Your task to perform on an android device: Search for "macbook pro 15 inch" on target.com, select the first entry, and add it to the cart. Image 0: 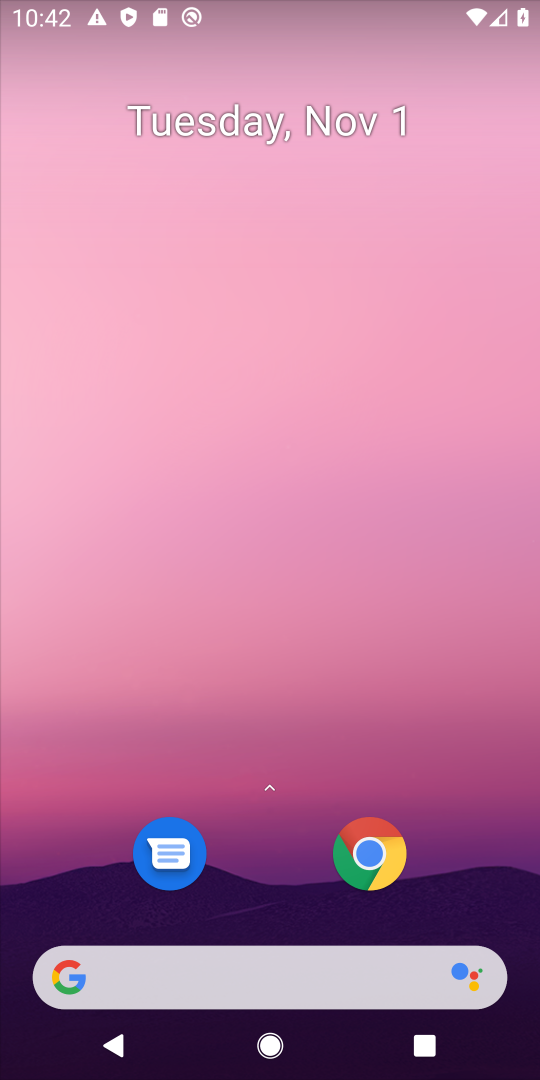
Step 0: click (282, 988)
Your task to perform on an android device: Search for "macbook pro 15 inch" on target.com, select the first entry, and add it to the cart. Image 1: 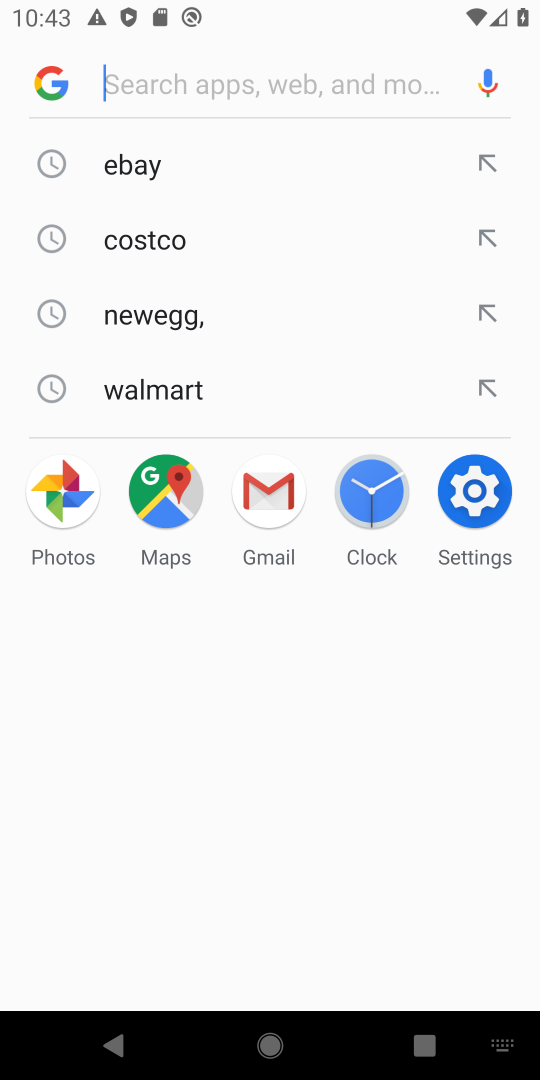
Step 1: type "target"
Your task to perform on an android device: Search for "macbook pro 15 inch" on target.com, select the first entry, and add it to the cart. Image 2: 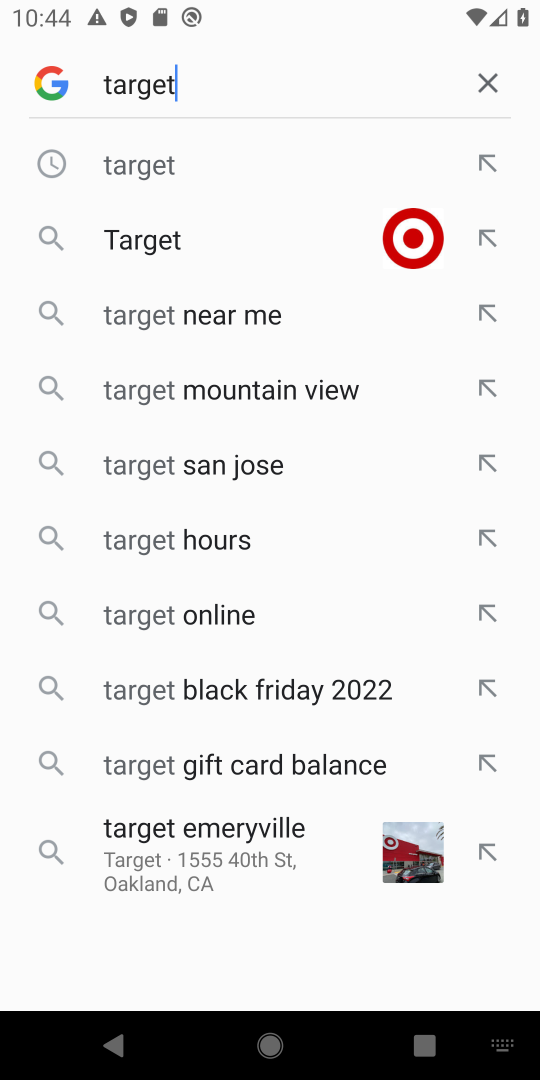
Step 2: click (363, 222)
Your task to perform on an android device: Search for "macbook pro 15 inch" on target.com, select the first entry, and add it to the cart. Image 3: 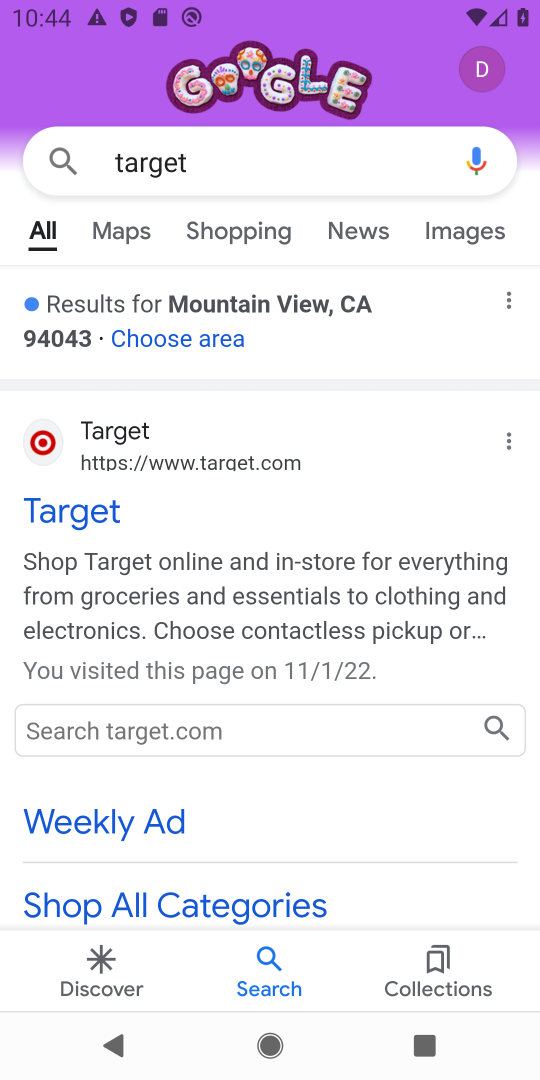
Step 3: click (129, 416)
Your task to perform on an android device: Search for "macbook pro 15 inch" on target.com, select the first entry, and add it to the cart. Image 4: 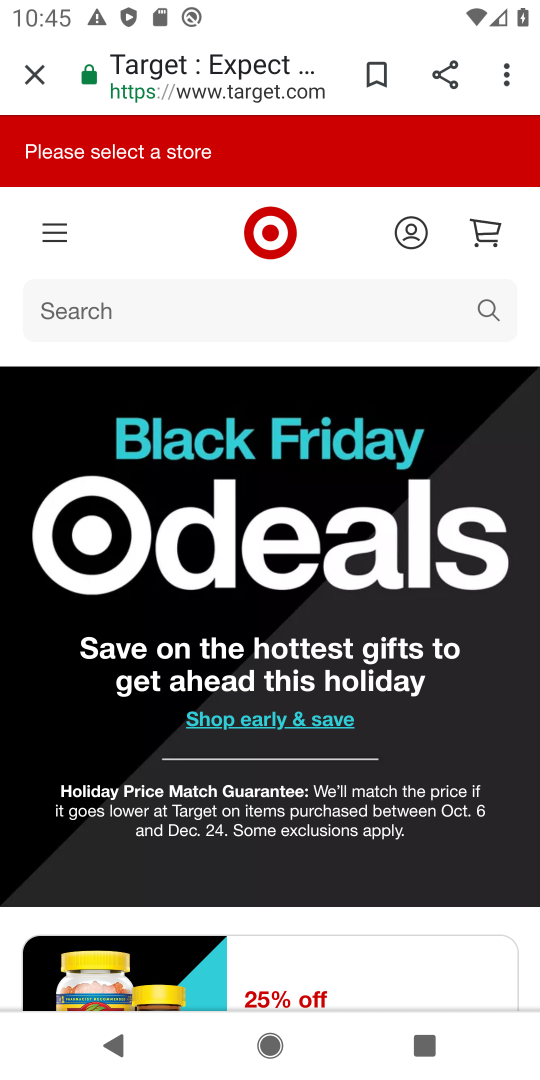
Step 4: click (356, 326)
Your task to perform on an android device: Search for "macbook pro 15 inch" on target.com, select the first entry, and add it to the cart. Image 5: 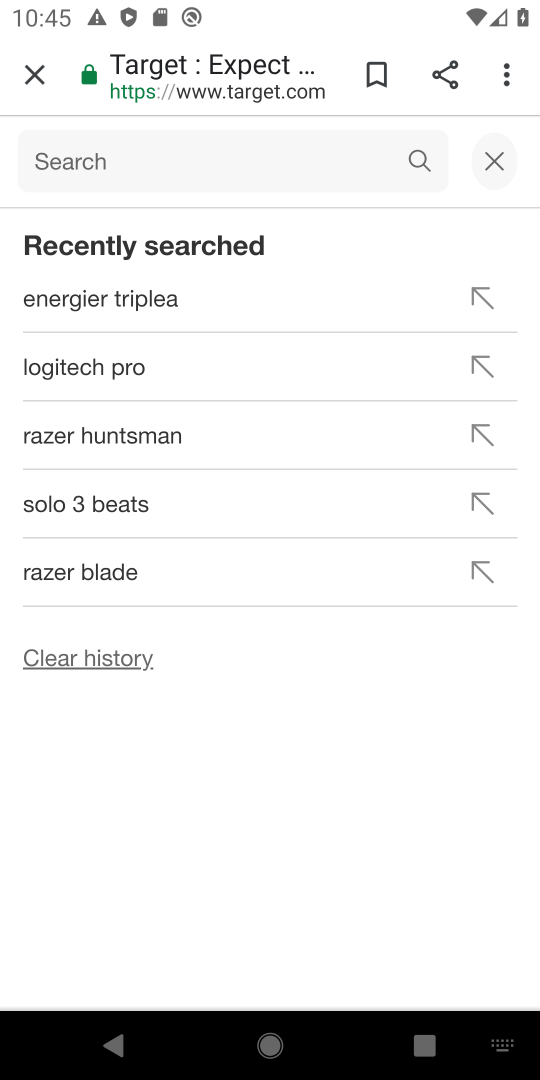
Step 5: type "macbook pro 15"
Your task to perform on an android device: Search for "macbook pro 15 inch" on target.com, select the first entry, and add it to the cart. Image 6: 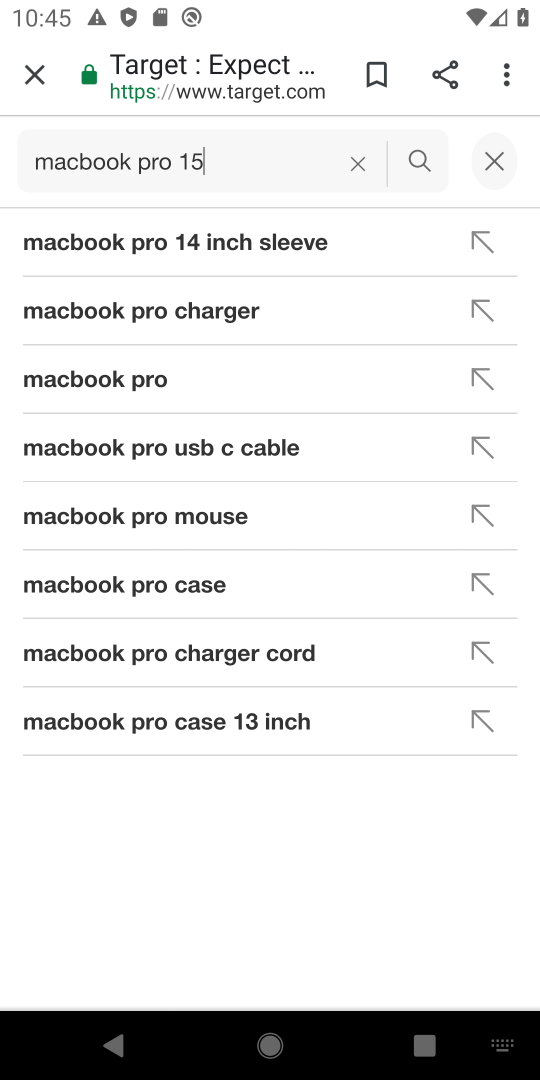
Step 6: click (237, 255)
Your task to perform on an android device: Search for "macbook pro 15 inch" on target.com, select the first entry, and add it to the cart. Image 7: 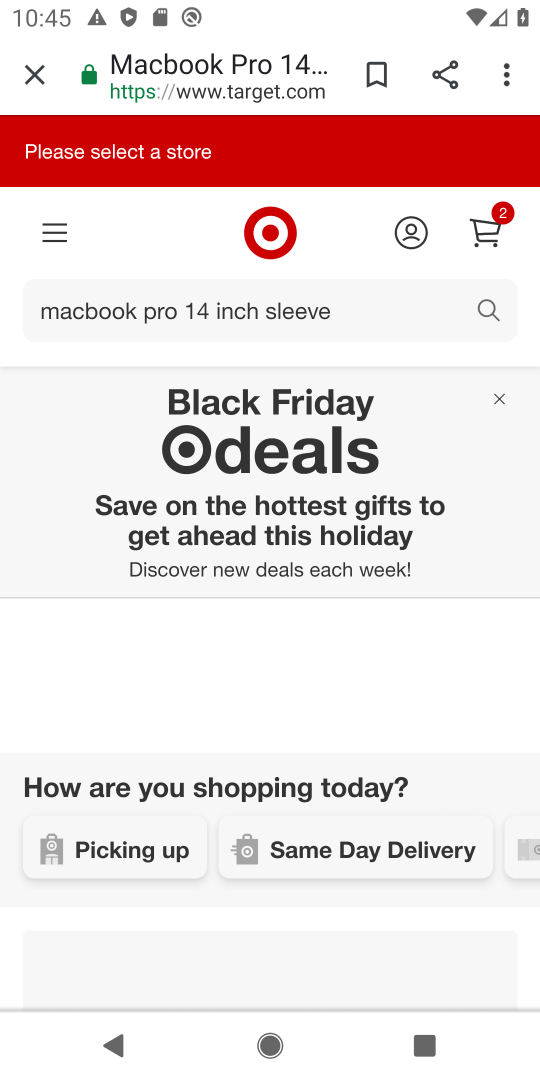
Step 7: task complete